Your task to perform on an android device: open chrome privacy settings Image 0: 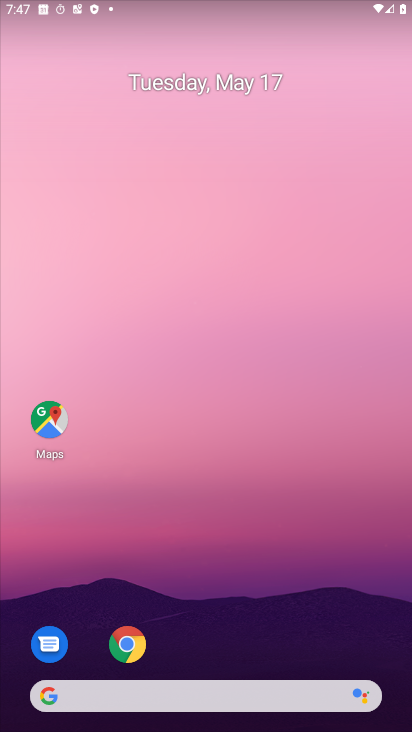
Step 0: drag from (334, 620) to (220, 31)
Your task to perform on an android device: open chrome privacy settings Image 1: 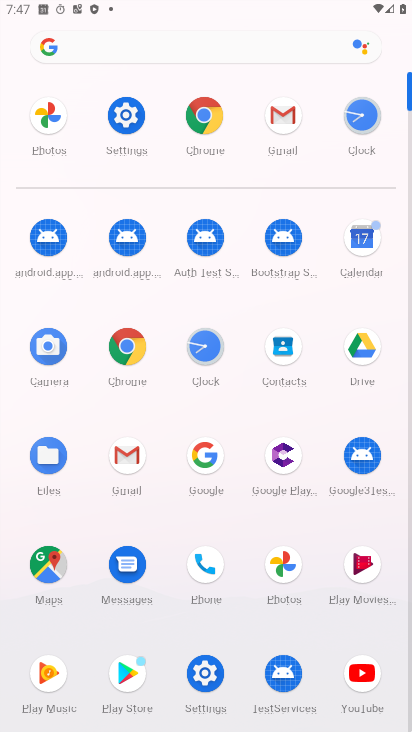
Step 1: click (209, 131)
Your task to perform on an android device: open chrome privacy settings Image 2: 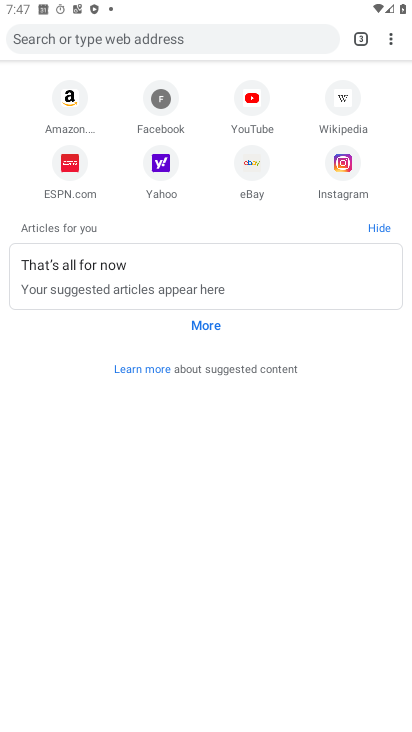
Step 2: click (389, 36)
Your task to perform on an android device: open chrome privacy settings Image 3: 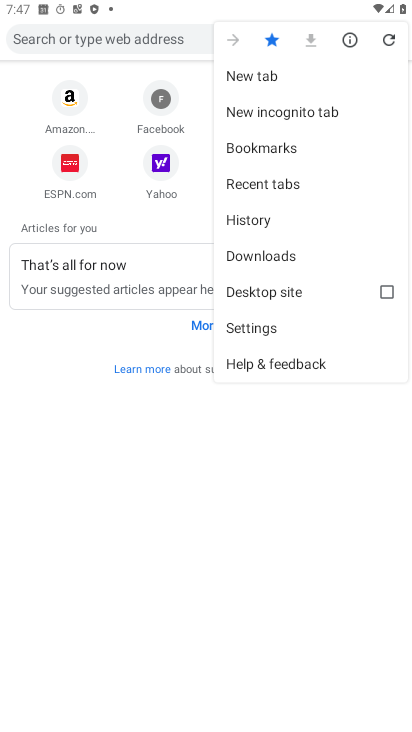
Step 3: click (246, 325)
Your task to perform on an android device: open chrome privacy settings Image 4: 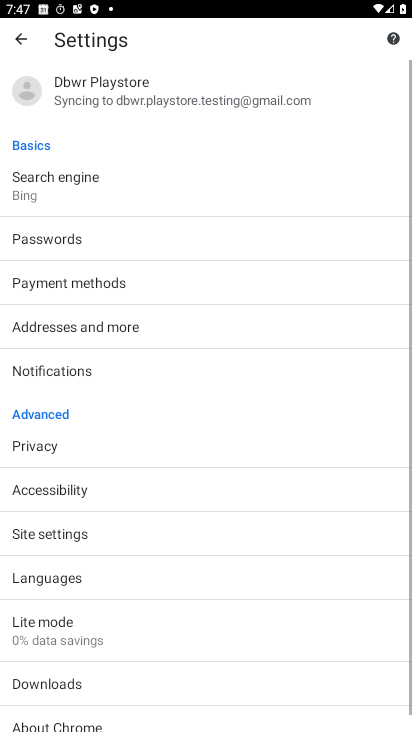
Step 4: click (66, 446)
Your task to perform on an android device: open chrome privacy settings Image 5: 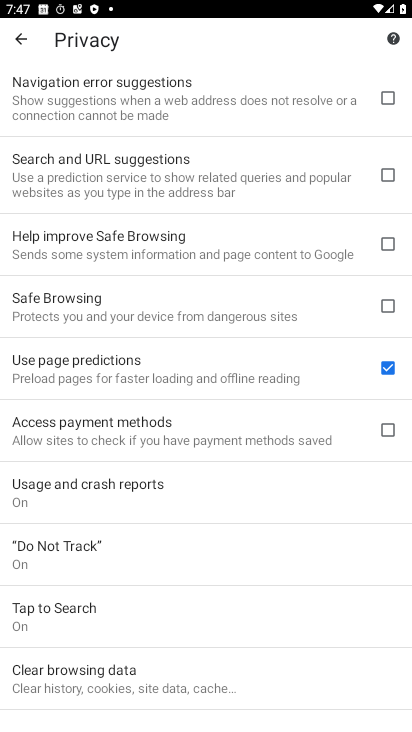
Step 5: task complete